Your task to perform on an android device: search for starred emails in the gmail app Image 0: 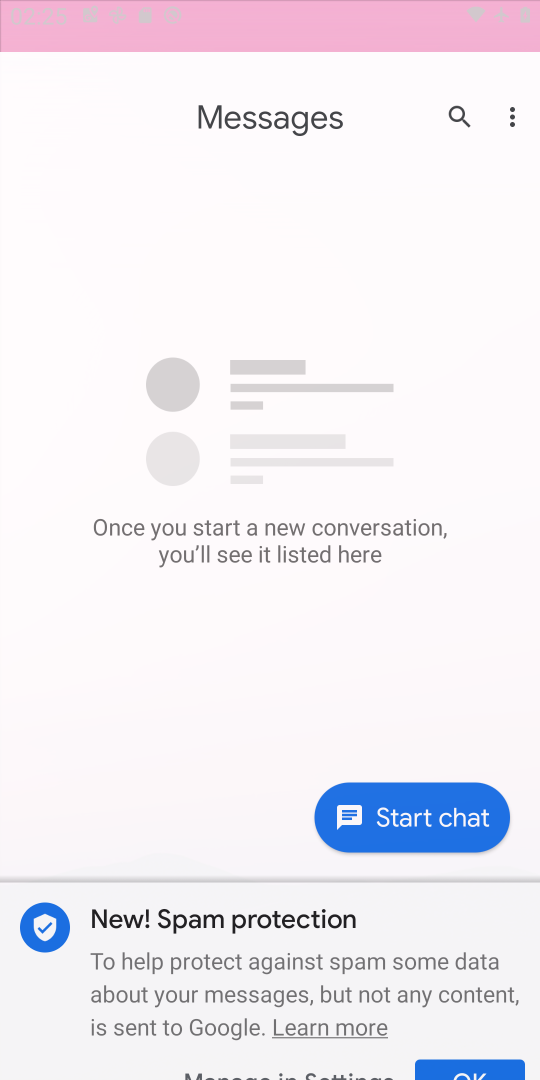
Step 0: press home button
Your task to perform on an android device: search for starred emails in the gmail app Image 1: 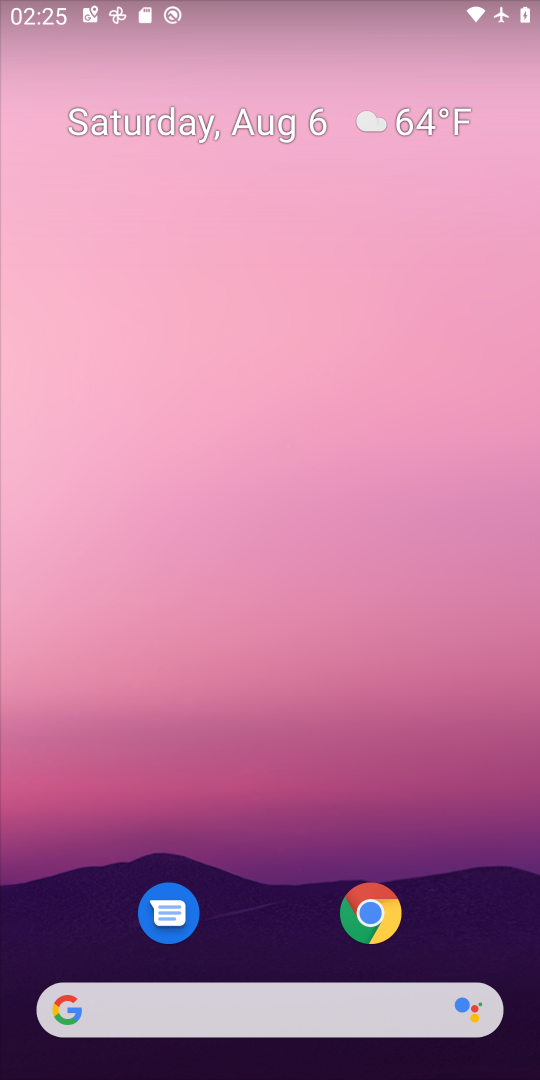
Step 1: drag from (276, 939) to (315, 252)
Your task to perform on an android device: search for starred emails in the gmail app Image 2: 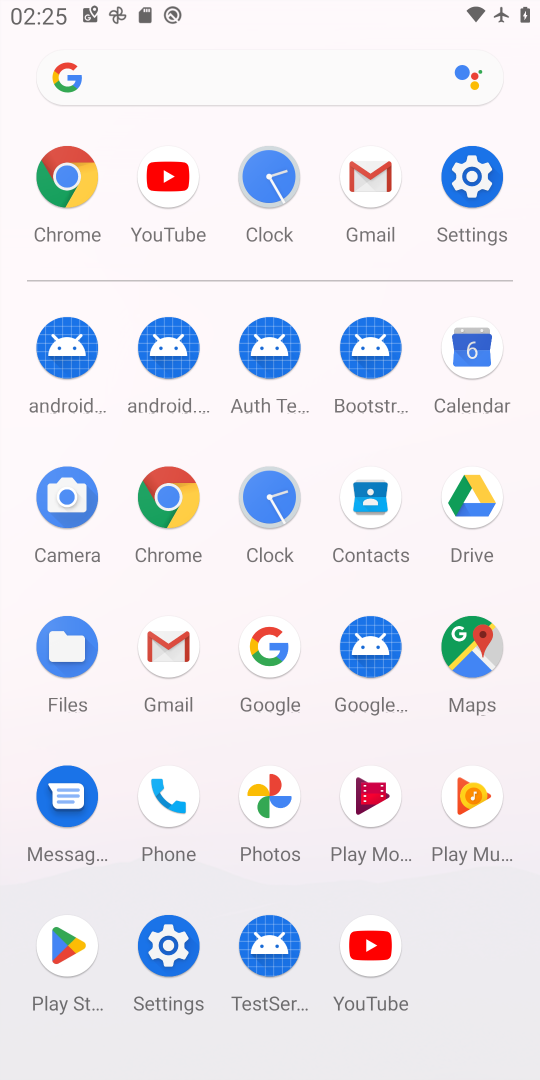
Step 2: click (170, 648)
Your task to perform on an android device: search for starred emails in the gmail app Image 3: 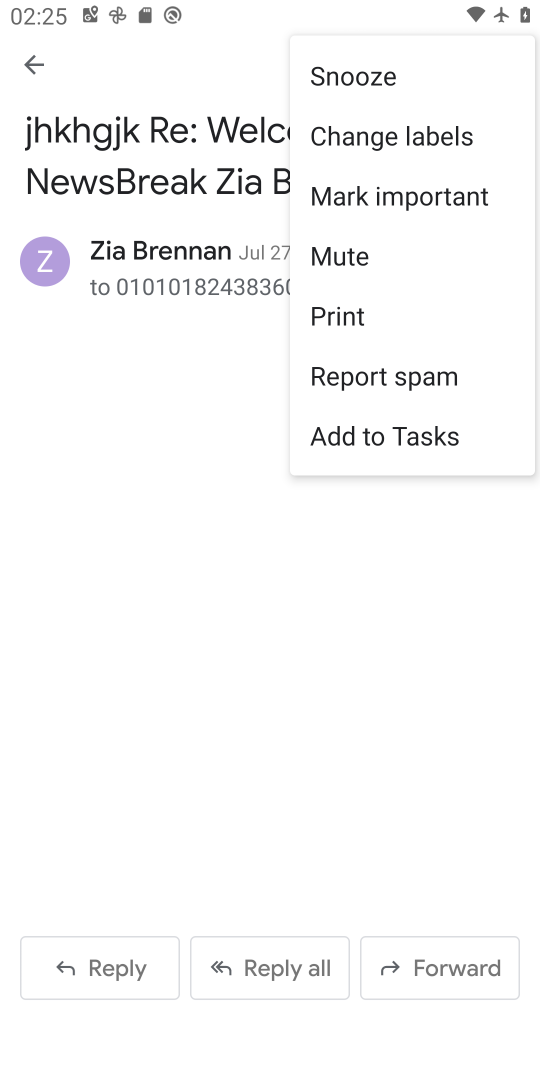
Step 3: click (39, 63)
Your task to perform on an android device: search for starred emails in the gmail app Image 4: 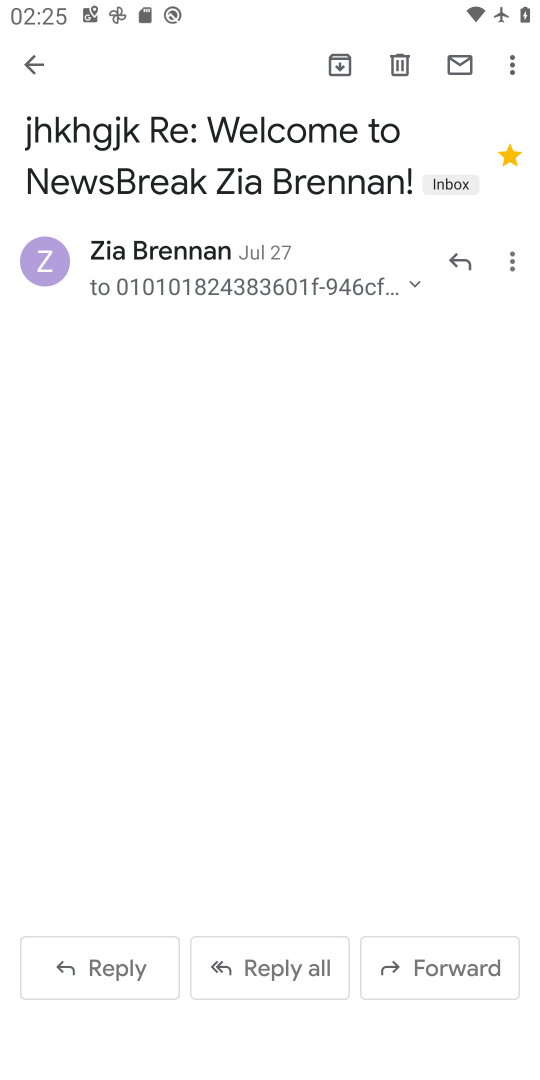
Step 4: click (32, 62)
Your task to perform on an android device: search for starred emails in the gmail app Image 5: 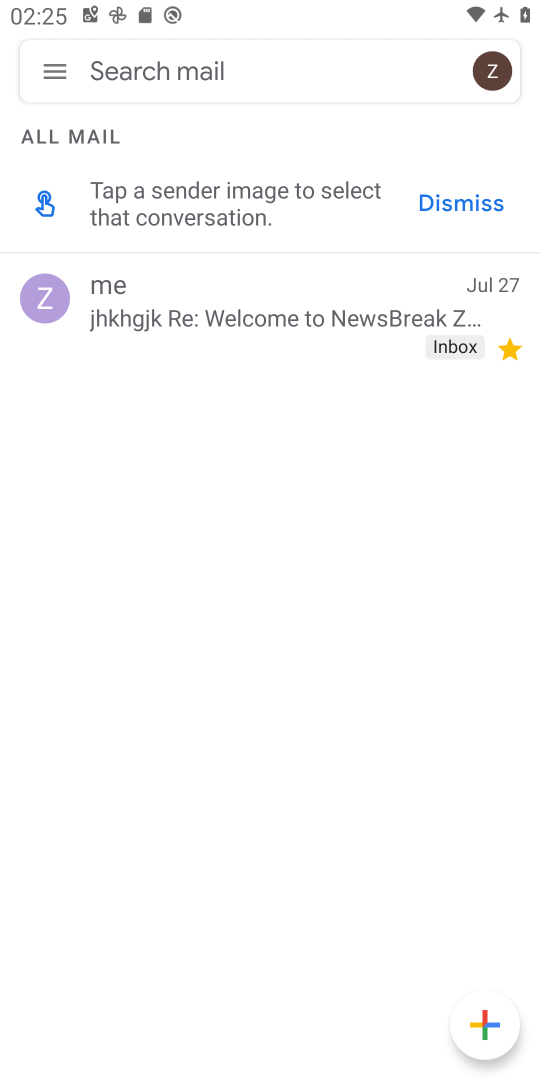
Step 5: click (56, 69)
Your task to perform on an android device: search for starred emails in the gmail app Image 6: 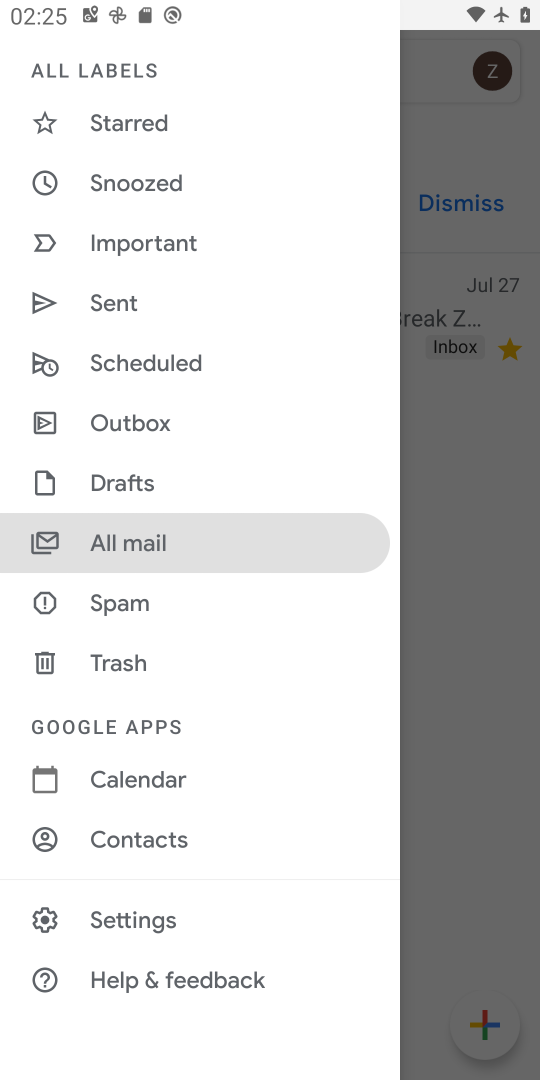
Step 6: click (144, 122)
Your task to perform on an android device: search for starred emails in the gmail app Image 7: 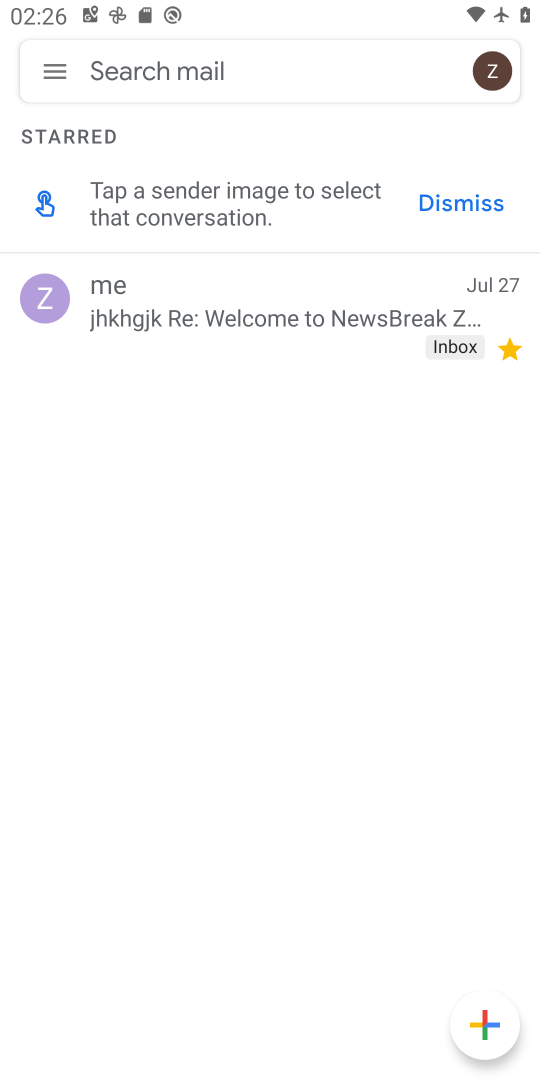
Step 7: task complete